Your task to perform on an android device: empty trash in google photos Image 0: 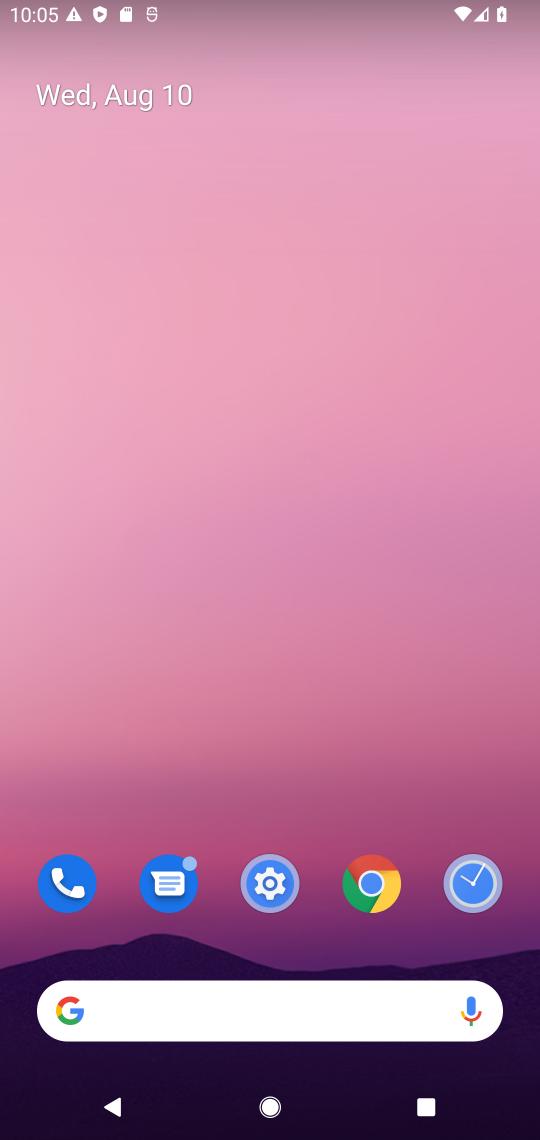
Step 0: press home button
Your task to perform on an android device: empty trash in google photos Image 1: 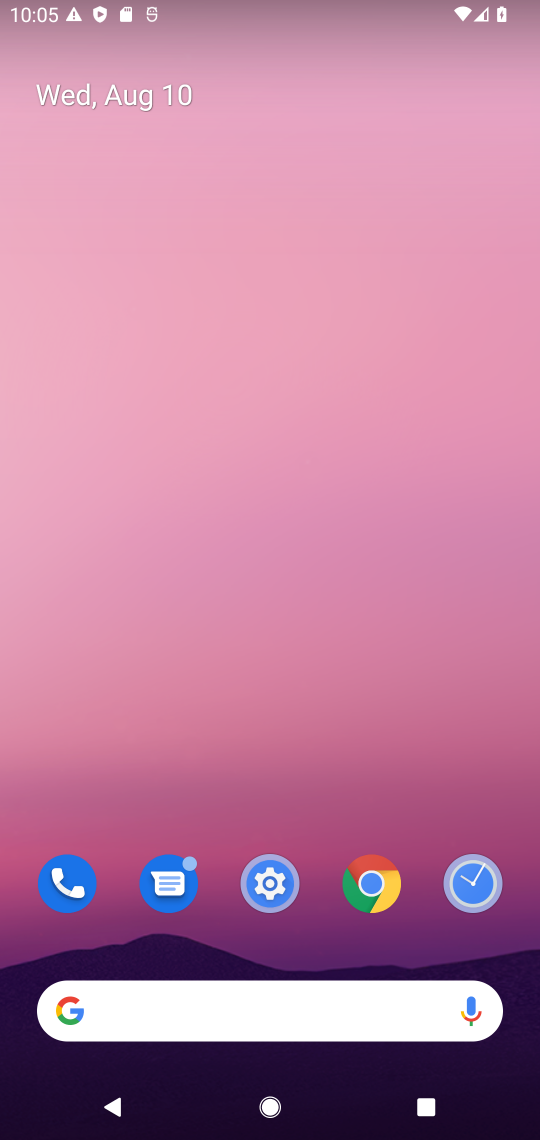
Step 1: press home button
Your task to perform on an android device: empty trash in google photos Image 2: 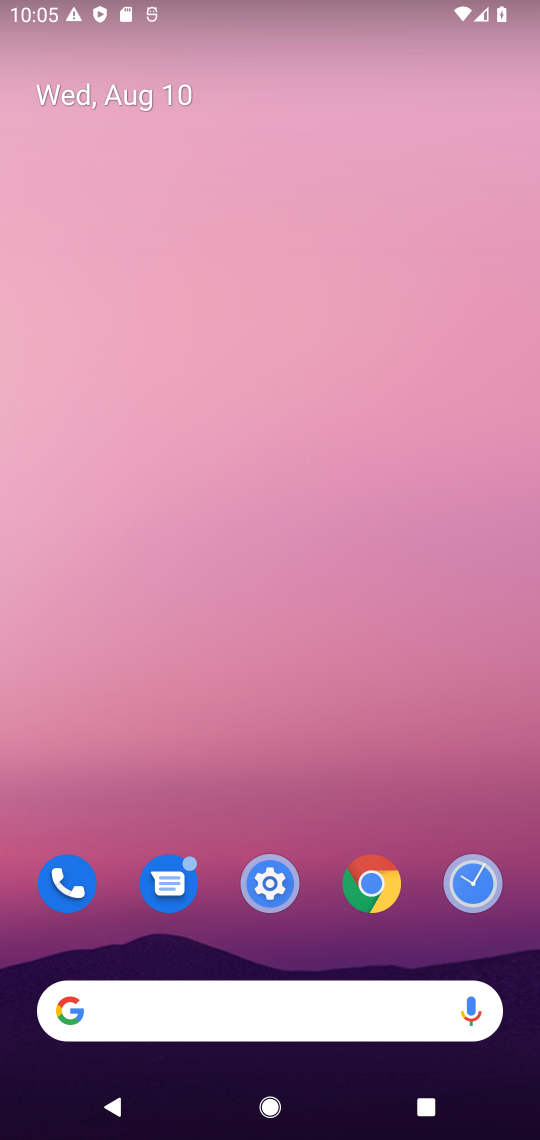
Step 2: drag from (335, 740) to (358, 68)
Your task to perform on an android device: empty trash in google photos Image 3: 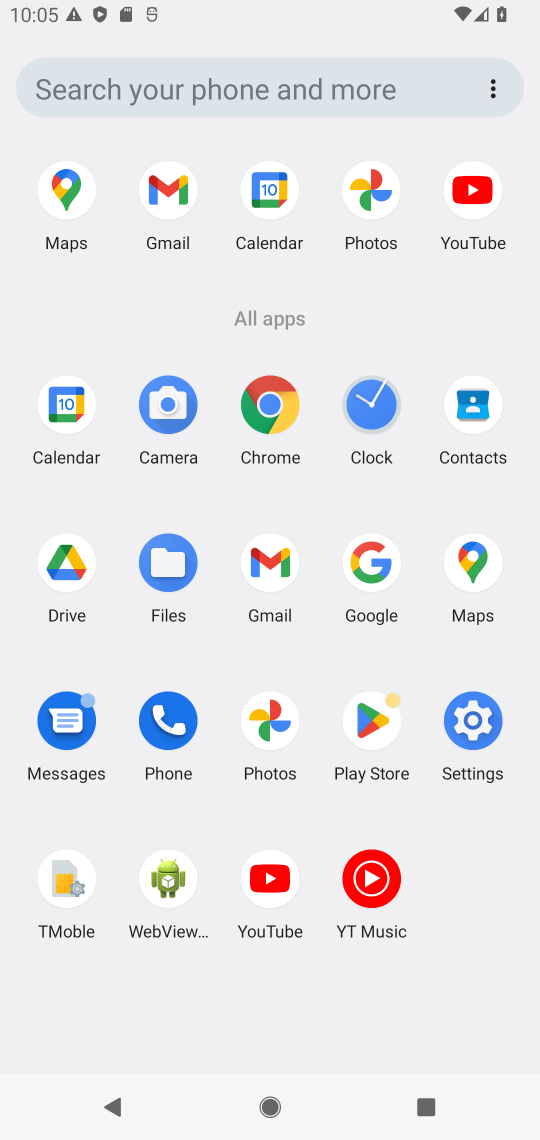
Step 3: click (259, 733)
Your task to perform on an android device: empty trash in google photos Image 4: 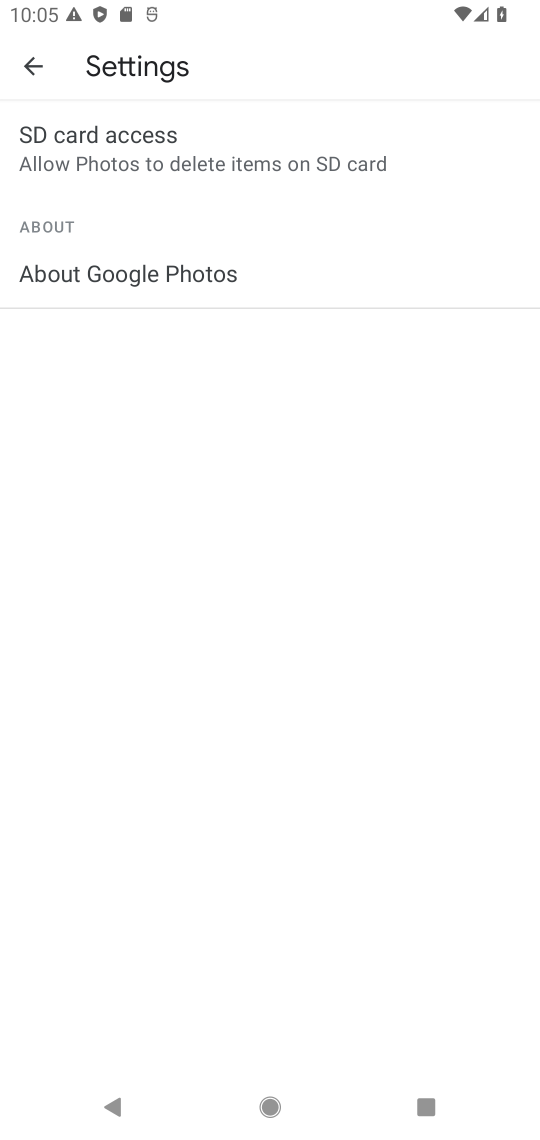
Step 4: click (26, 69)
Your task to perform on an android device: empty trash in google photos Image 5: 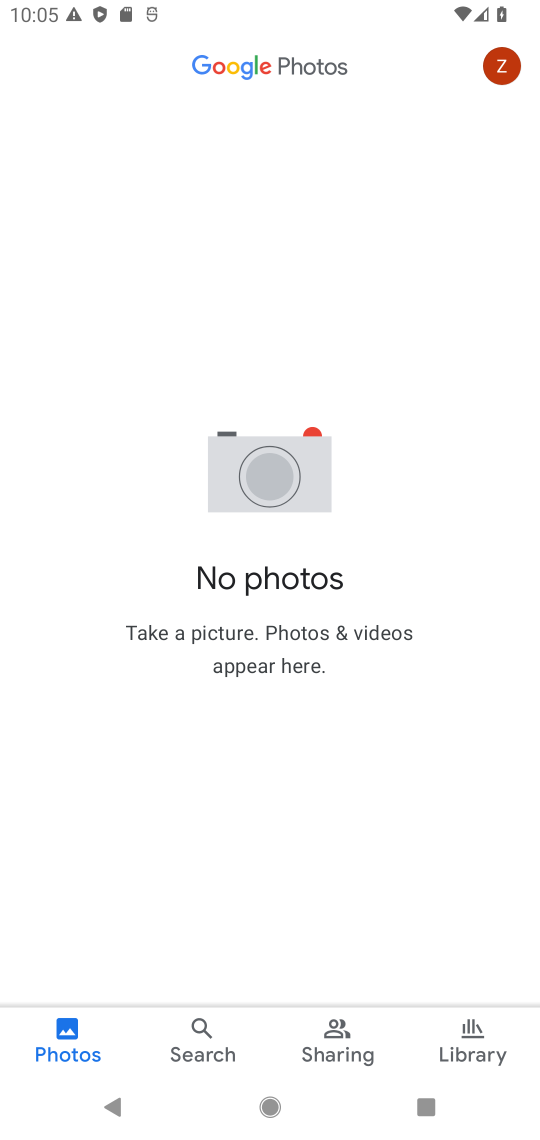
Step 5: click (496, 84)
Your task to perform on an android device: empty trash in google photos Image 6: 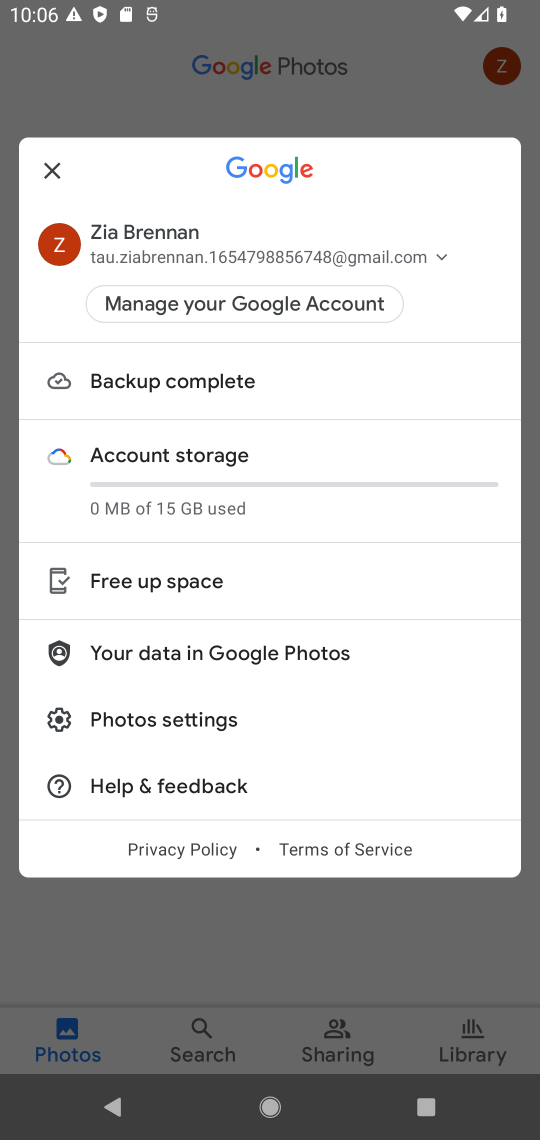
Step 6: click (111, 722)
Your task to perform on an android device: empty trash in google photos Image 7: 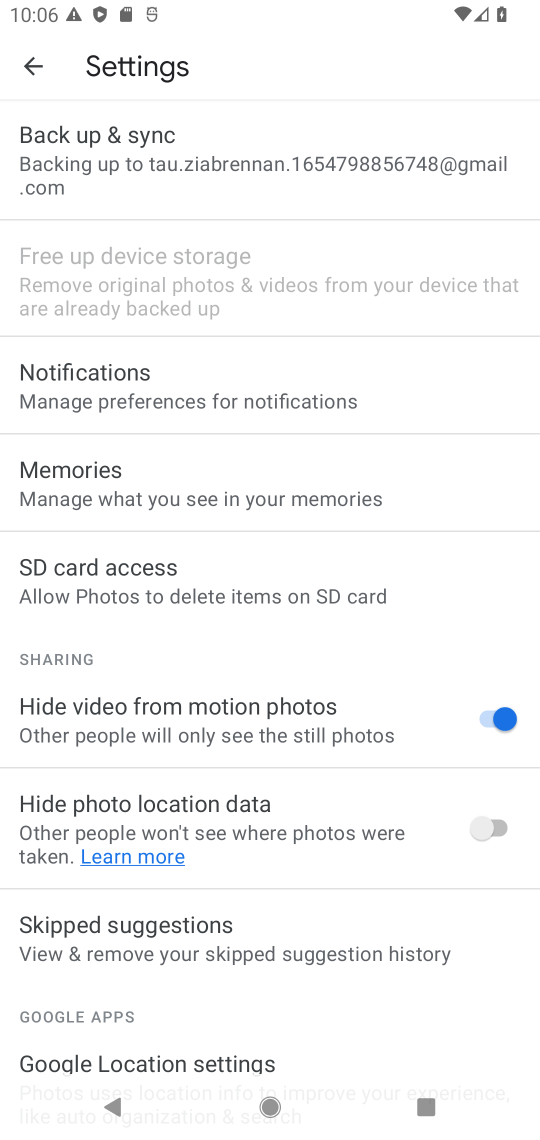
Step 7: press back button
Your task to perform on an android device: empty trash in google photos Image 8: 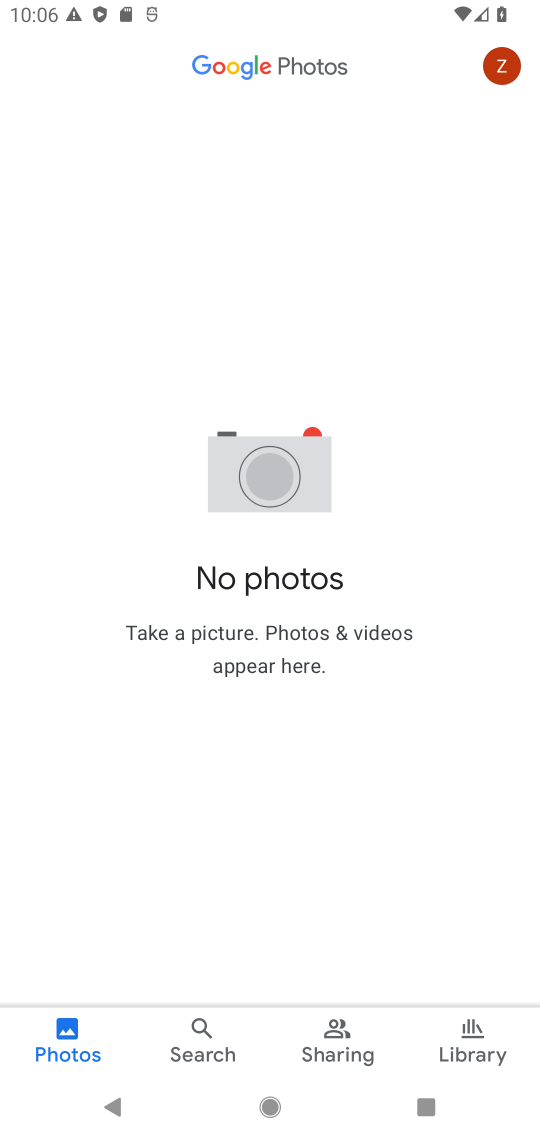
Step 8: click (469, 1026)
Your task to perform on an android device: empty trash in google photos Image 9: 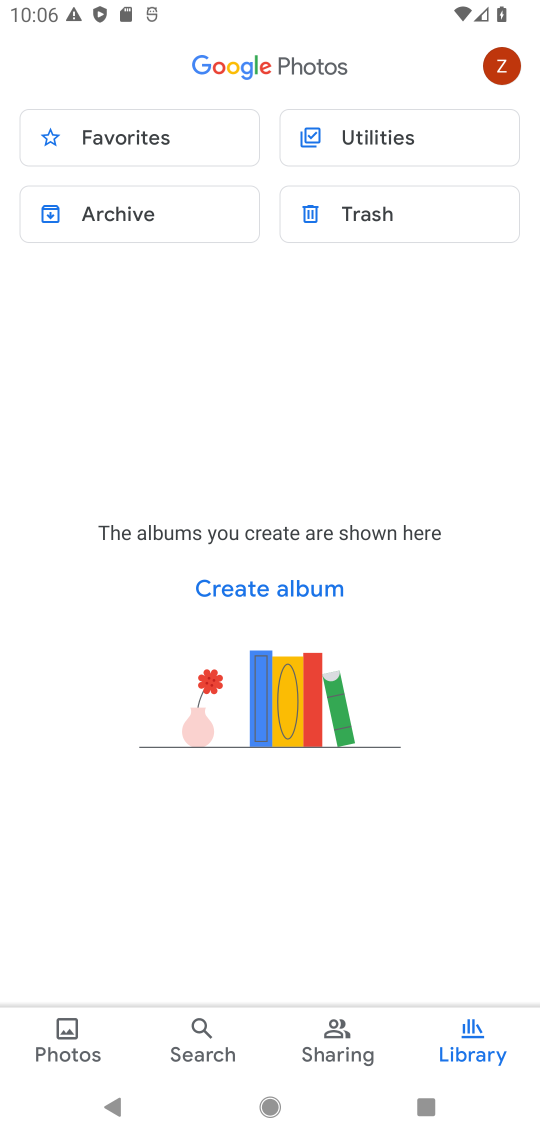
Step 9: click (356, 227)
Your task to perform on an android device: empty trash in google photos Image 10: 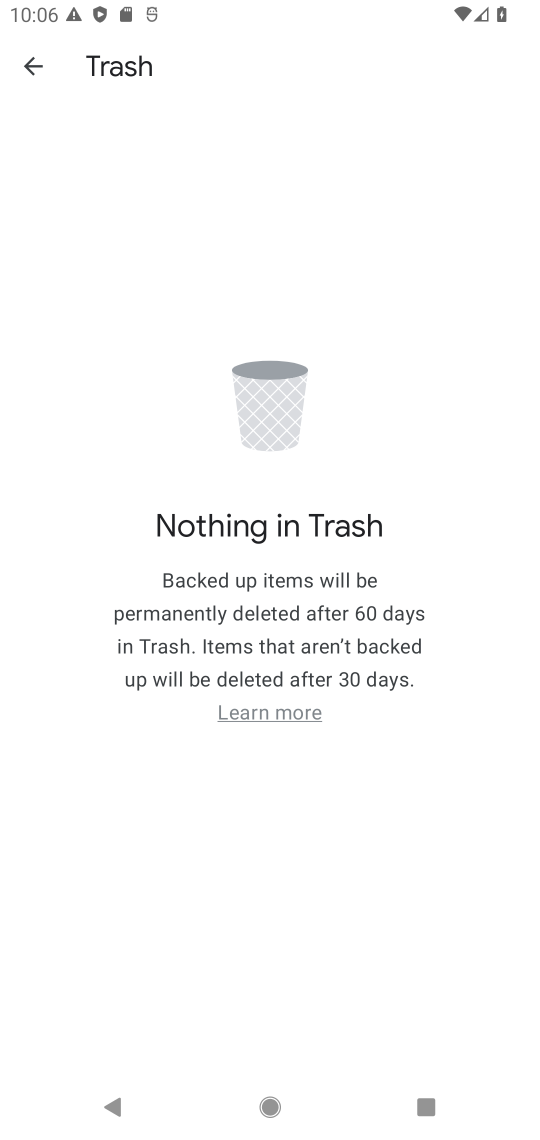
Step 10: task complete